Your task to perform on an android device: turn off improve location accuracy Image 0: 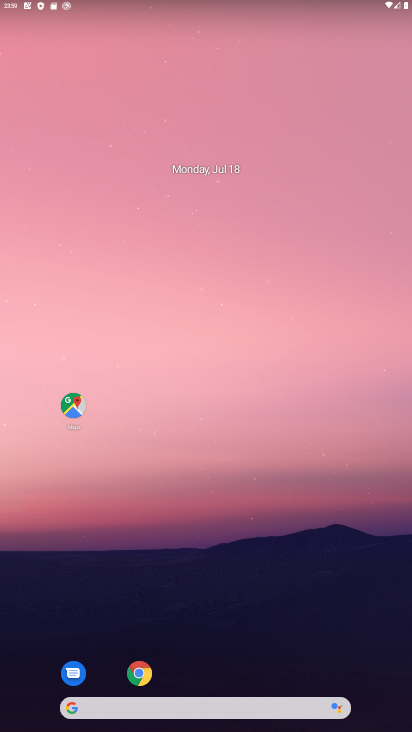
Step 0: drag from (245, 639) to (362, 111)
Your task to perform on an android device: turn off improve location accuracy Image 1: 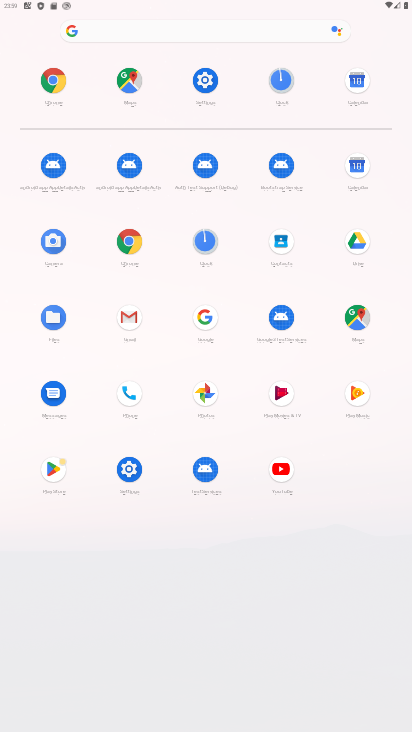
Step 1: click (204, 71)
Your task to perform on an android device: turn off improve location accuracy Image 2: 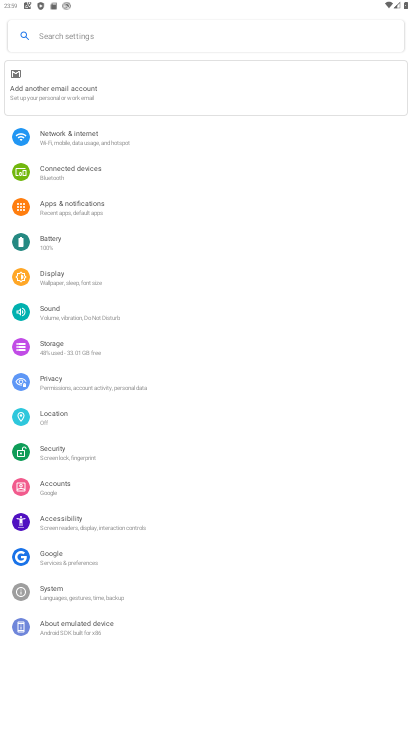
Step 2: click (60, 416)
Your task to perform on an android device: turn off improve location accuracy Image 3: 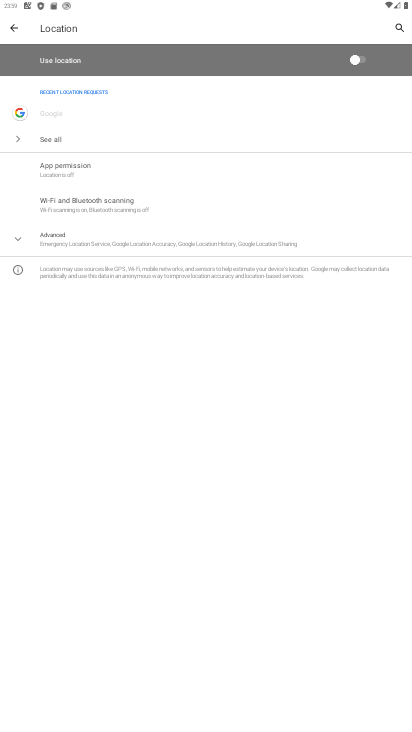
Step 3: click (132, 235)
Your task to perform on an android device: turn off improve location accuracy Image 4: 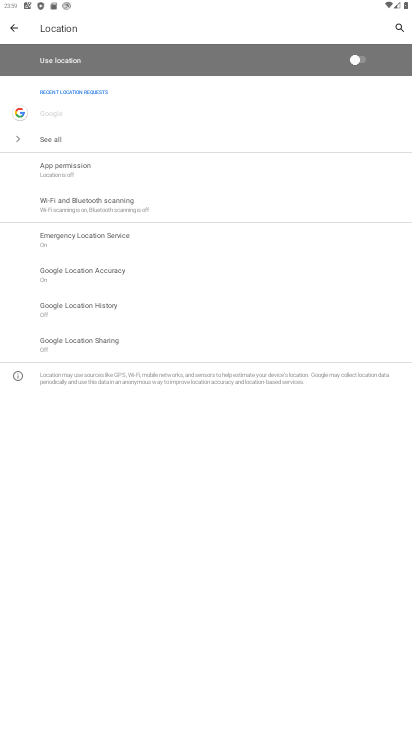
Step 4: click (111, 272)
Your task to perform on an android device: turn off improve location accuracy Image 5: 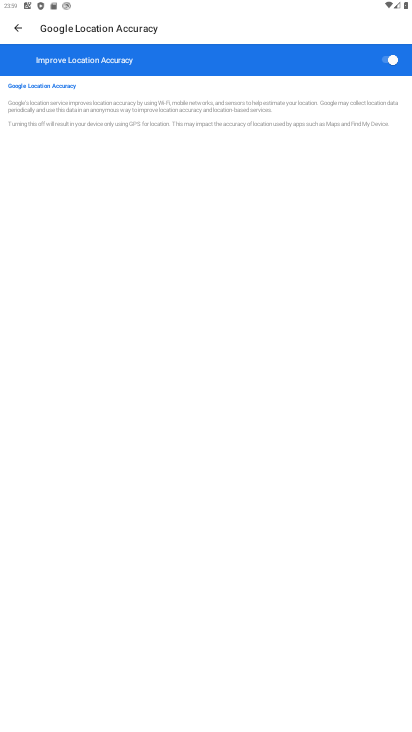
Step 5: click (385, 53)
Your task to perform on an android device: turn off improve location accuracy Image 6: 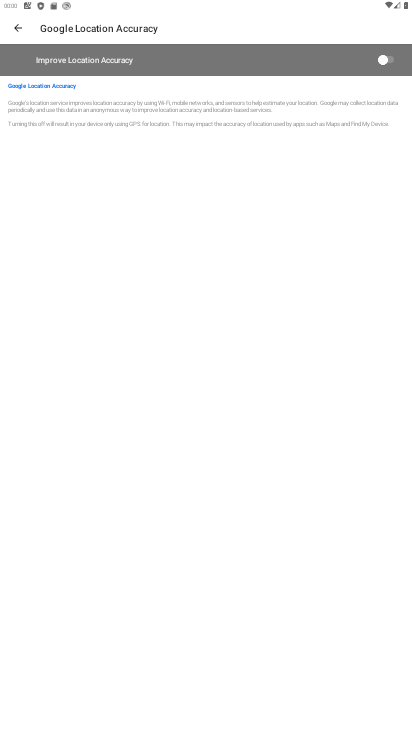
Step 6: task complete